Your task to perform on an android device: change timer sound Image 0: 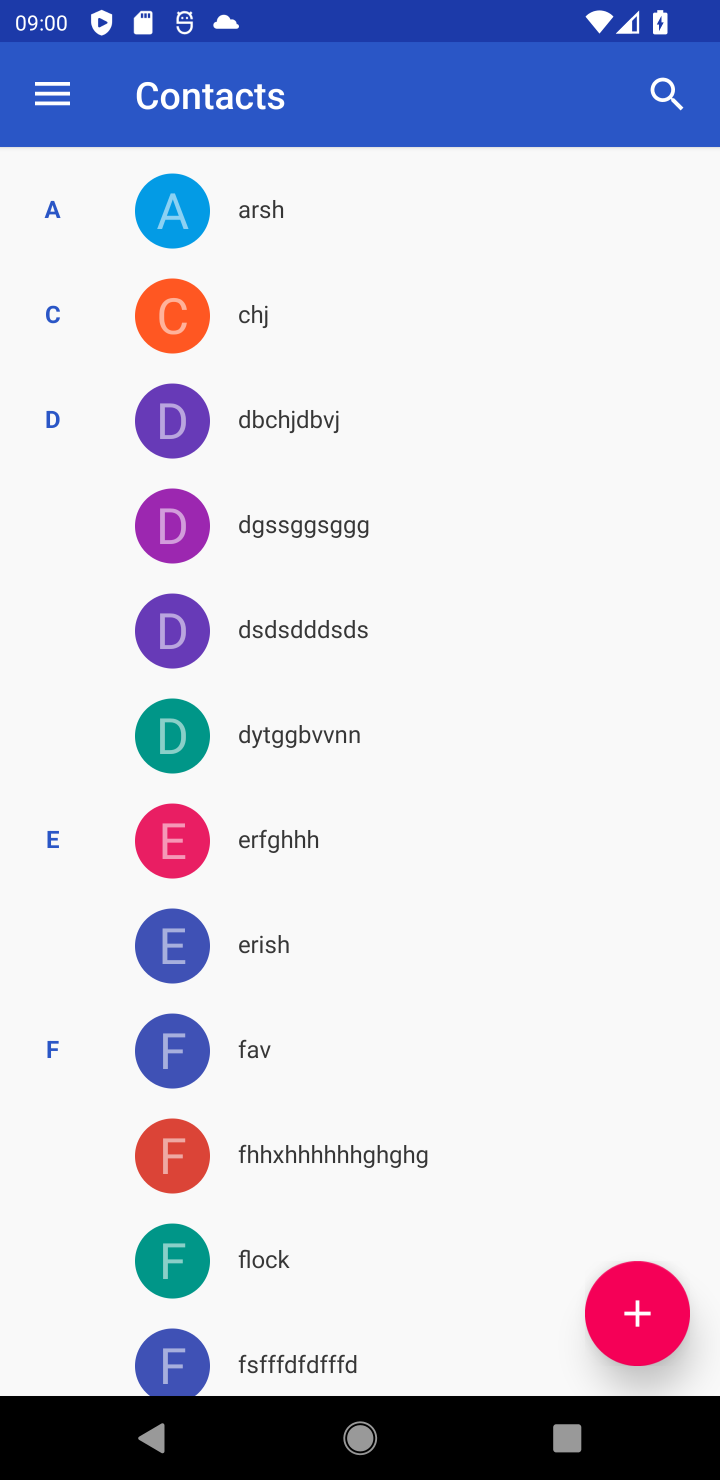
Step 0: press home button
Your task to perform on an android device: change timer sound Image 1: 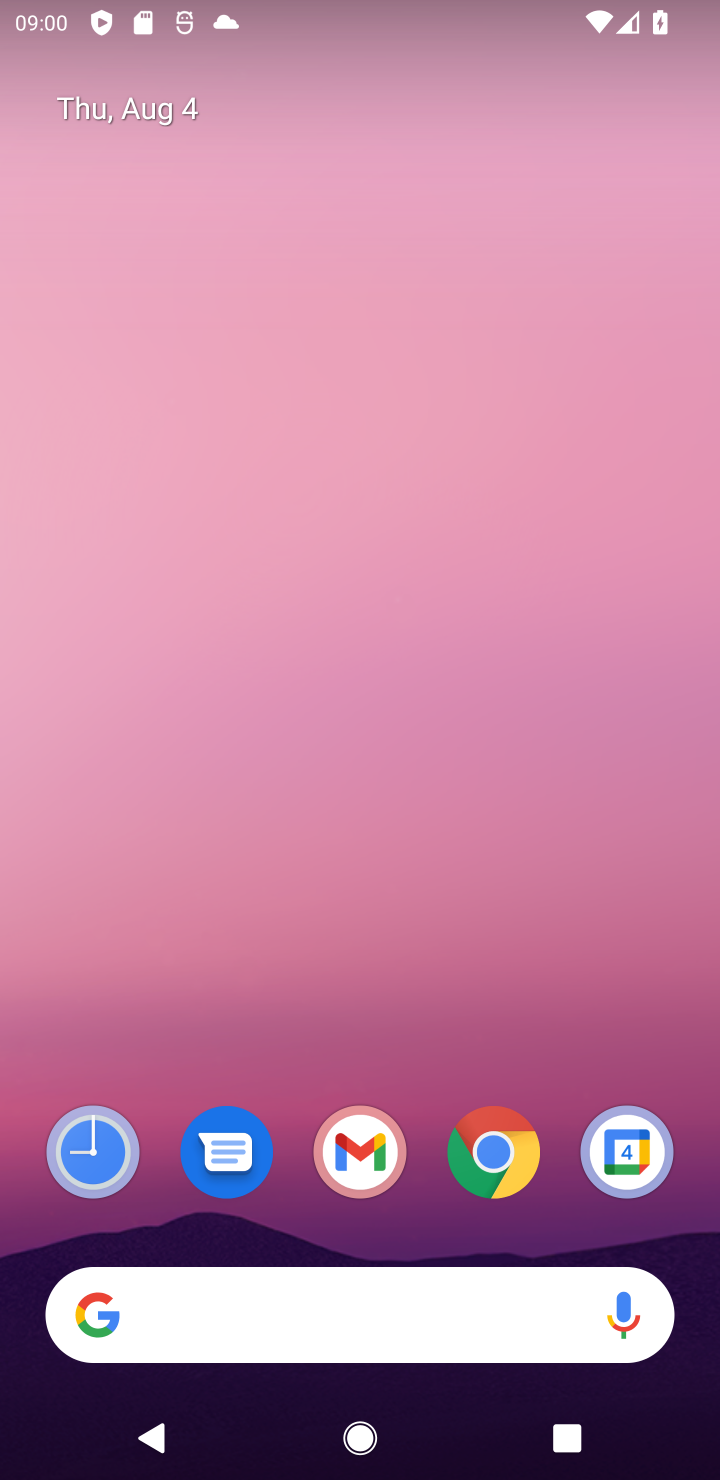
Step 1: drag from (381, 214) to (439, 16)
Your task to perform on an android device: change timer sound Image 2: 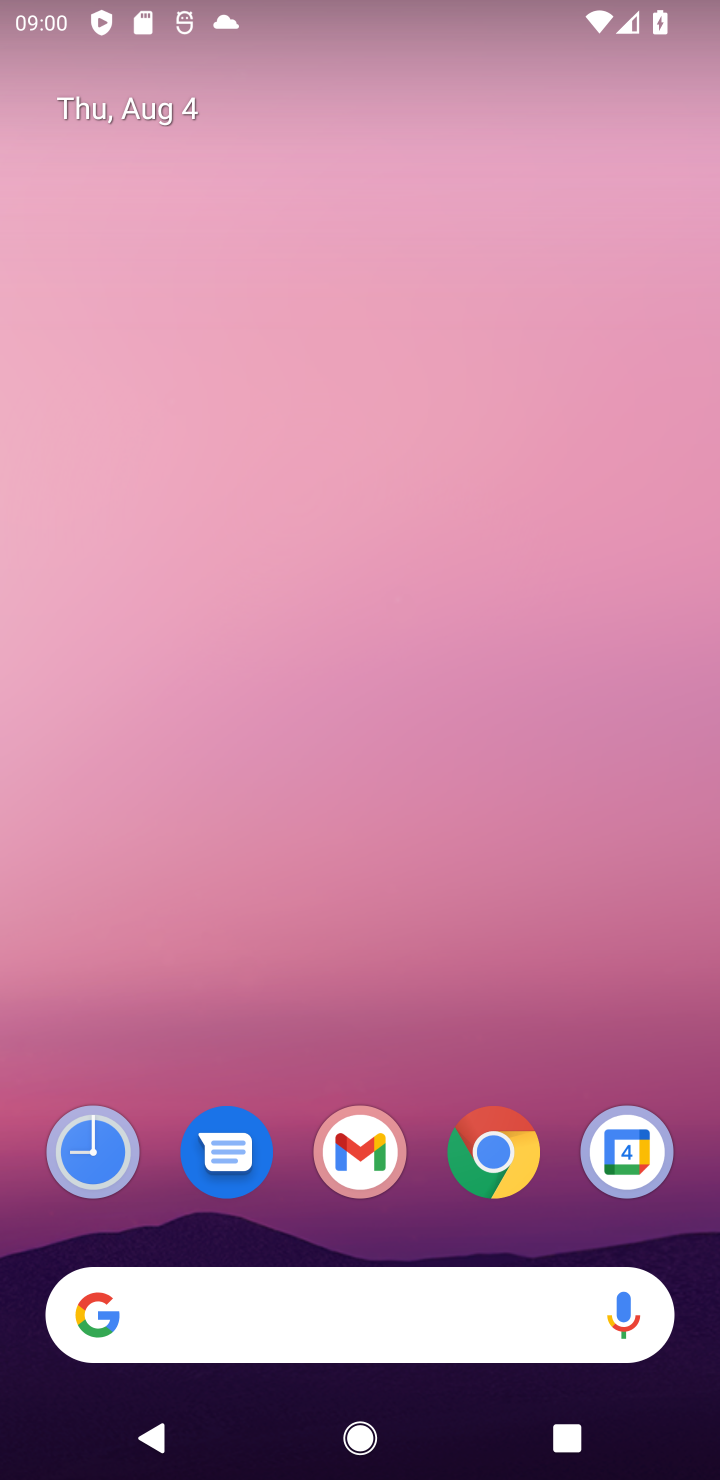
Step 2: drag from (51, 960) to (274, 131)
Your task to perform on an android device: change timer sound Image 3: 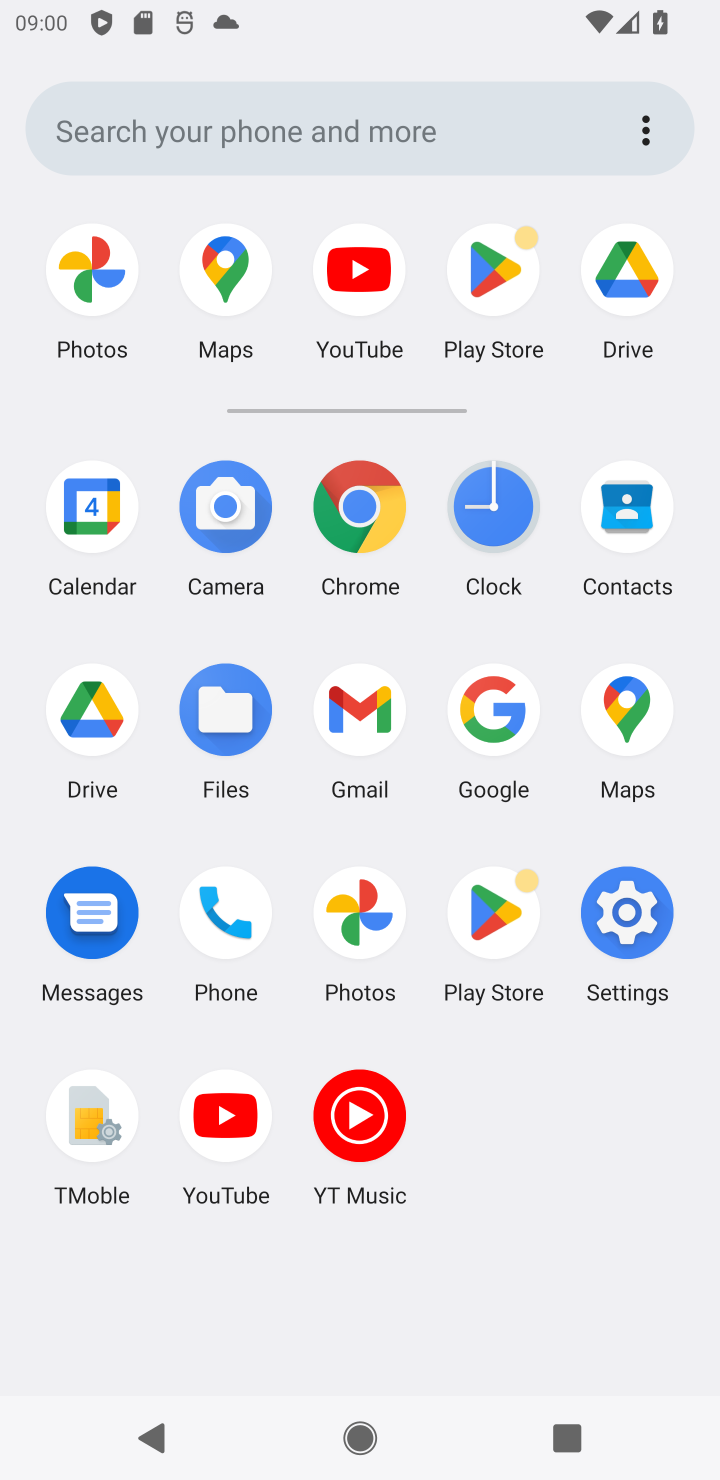
Step 3: click (622, 907)
Your task to perform on an android device: change timer sound Image 4: 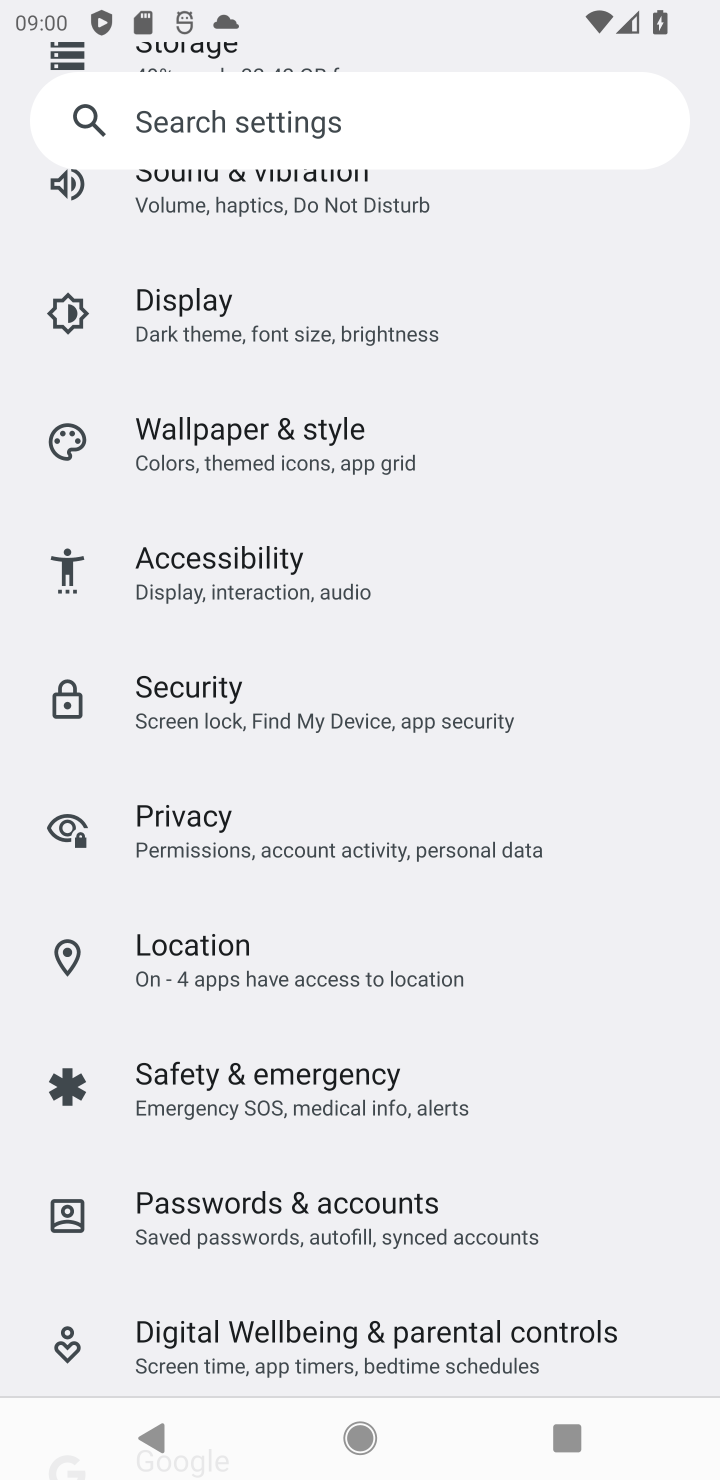
Step 4: click (224, 190)
Your task to perform on an android device: change timer sound Image 5: 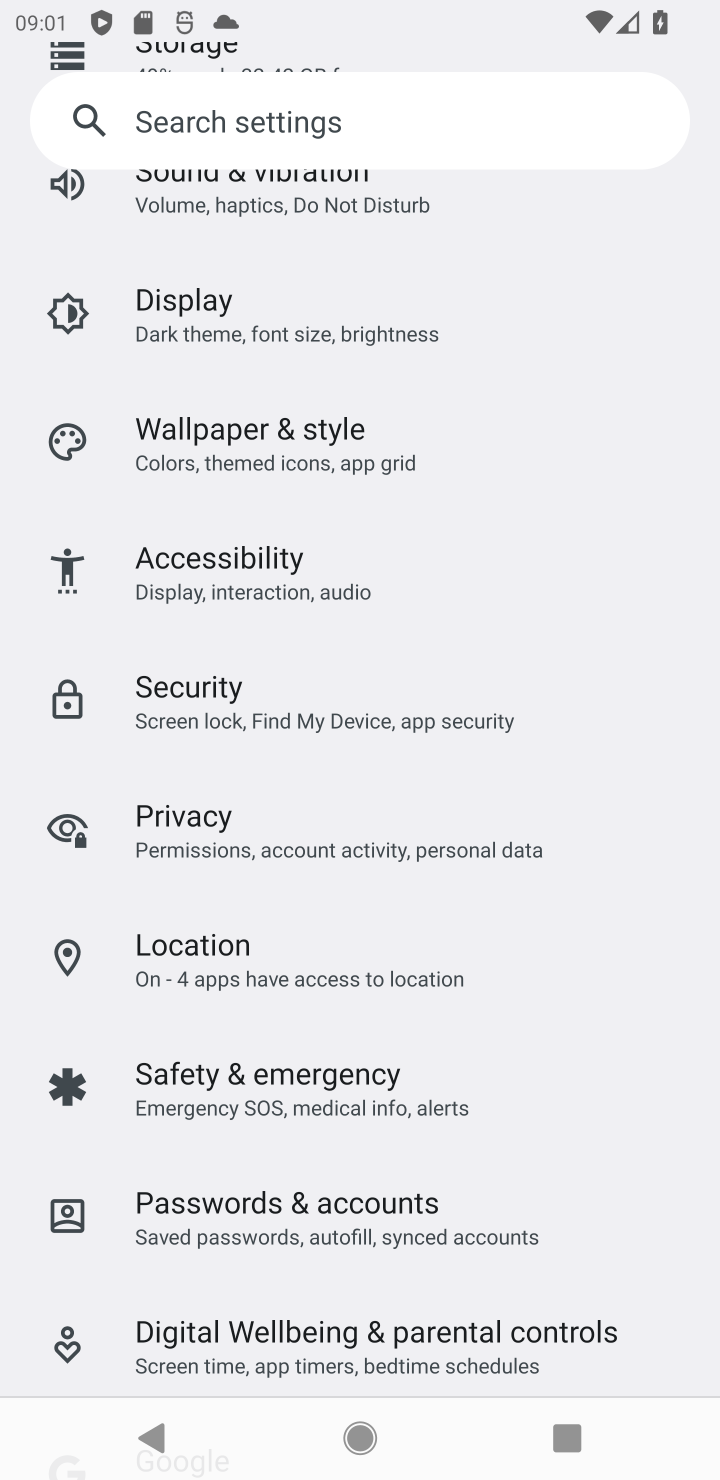
Step 5: click (200, 210)
Your task to perform on an android device: change timer sound Image 6: 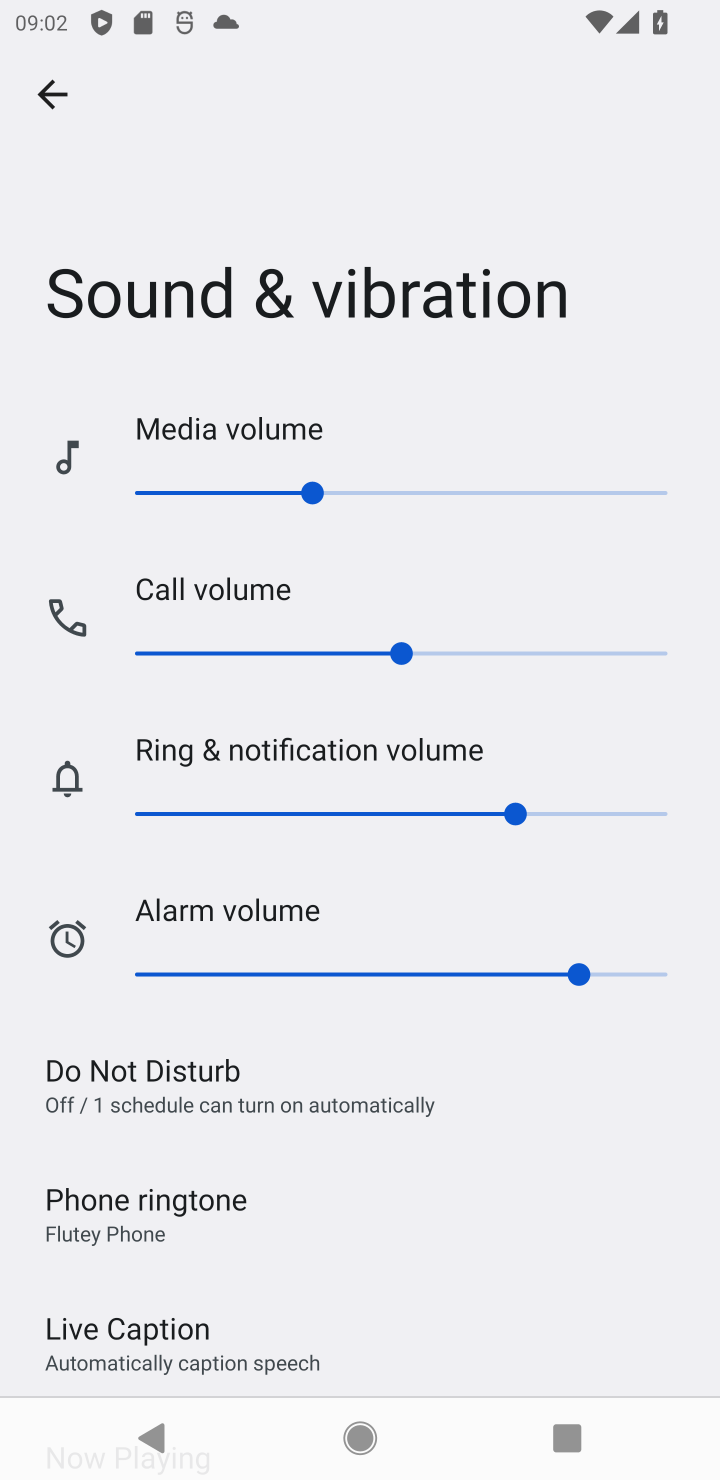
Step 6: task complete